Your task to perform on an android device: Check the weather Image 0: 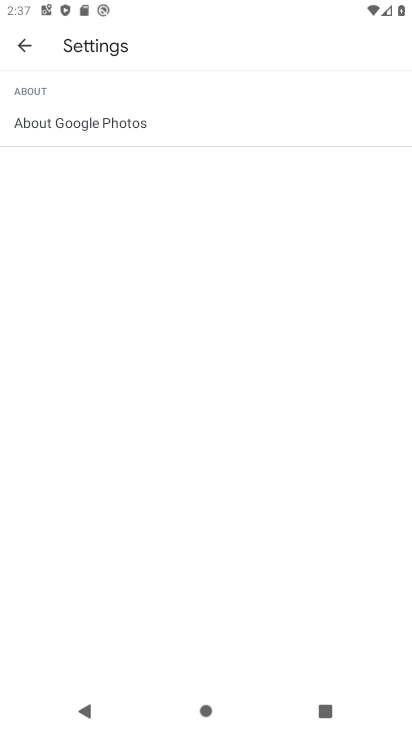
Step 0: drag from (165, 520) to (213, 107)
Your task to perform on an android device: Check the weather Image 1: 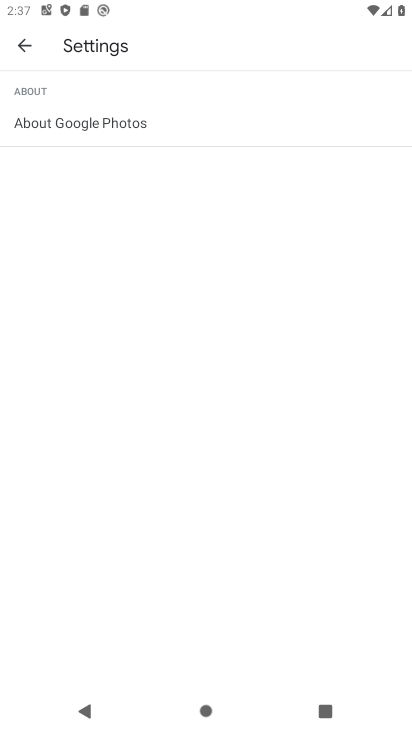
Step 1: press back button
Your task to perform on an android device: Check the weather Image 2: 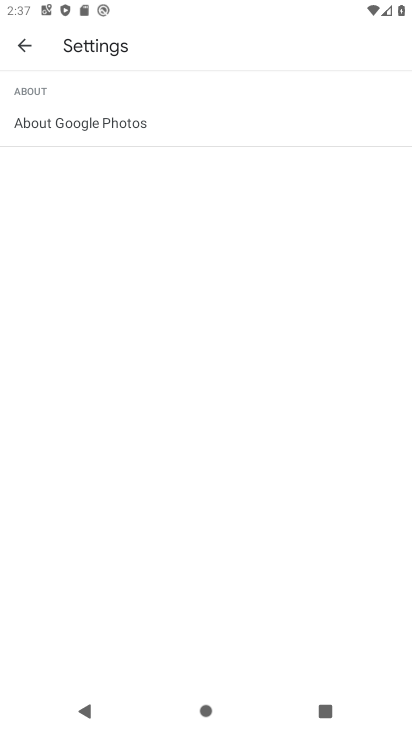
Step 2: press home button
Your task to perform on an android device: Check the weather Image 3: 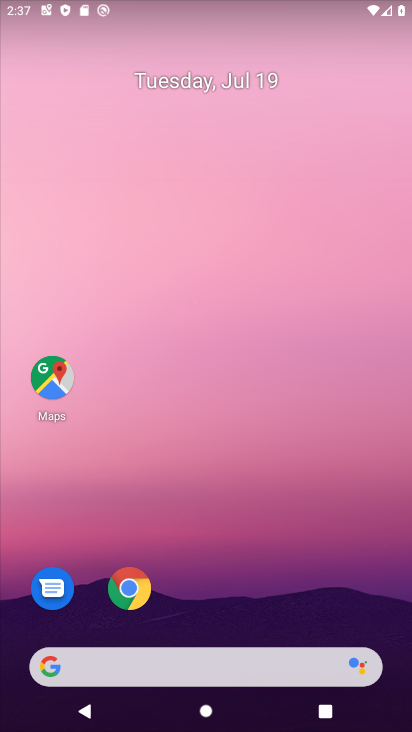
Step 3: drag from (198, 572) to (180, 142)
Your task to perform on an android device: Check the weather Image 4: 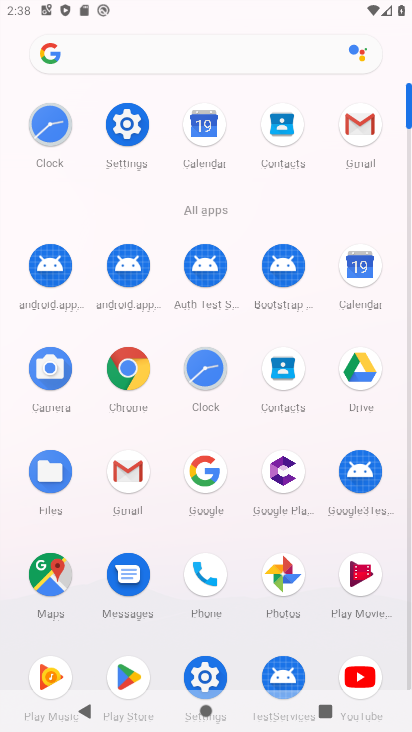
Step 4: click (198, 471)
Your task to perform on an android device: Check the weather Image 5: 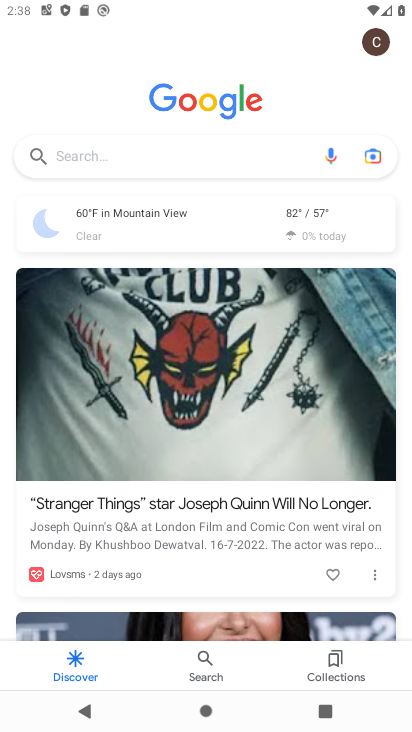
Step 5: click (133, 148)
Your task to perform on an android device: Check the weather Image 6: 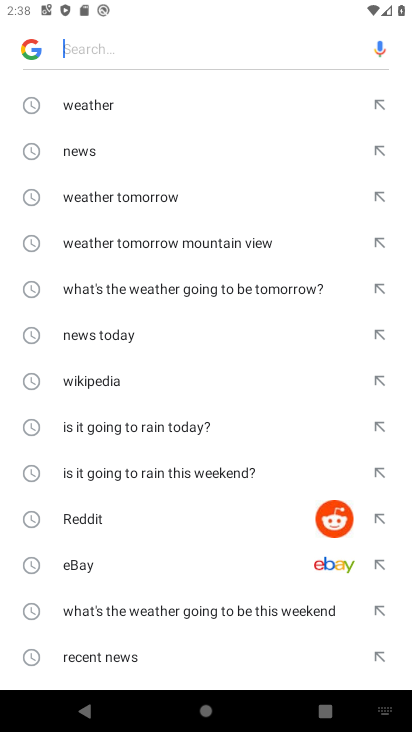
Step 6: click (97, 102)
Your task to perform on an android device: Check the weather Image 7: 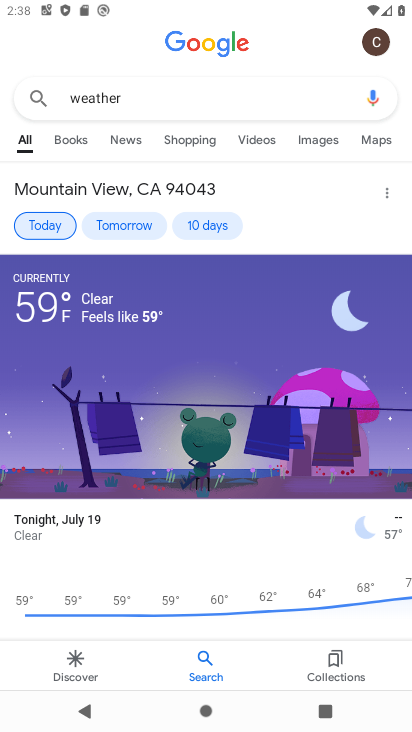
Step 7: task complete